Your task to perform on an android device: Go to display settings Image 0: 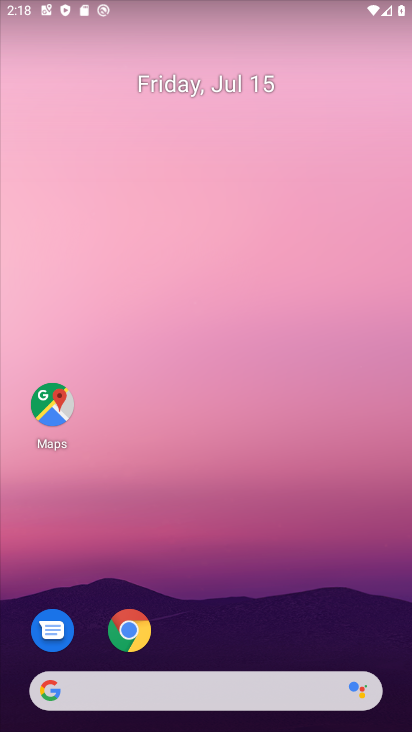
Step 0: press home button
Your task to perform on an android device: Go to display settings Image 1: 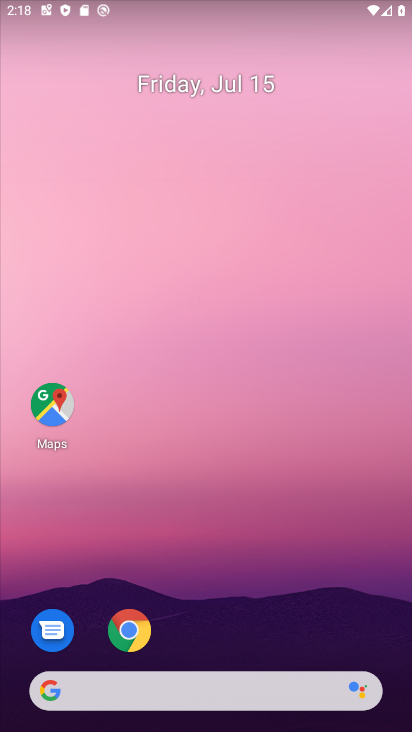
Step 1: drag from (305, 606) to (315, 240)
Your task to perform on an android device: Go to display settings Image 2: 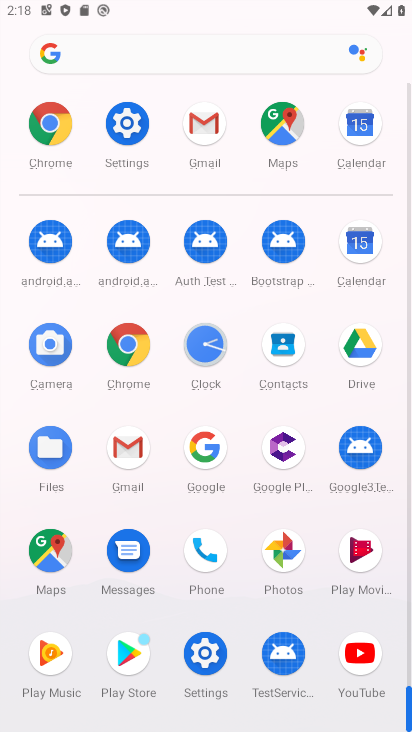
Step 2: click (120, 134)
Your task to perform on an android device: Go to display settings Image 3: 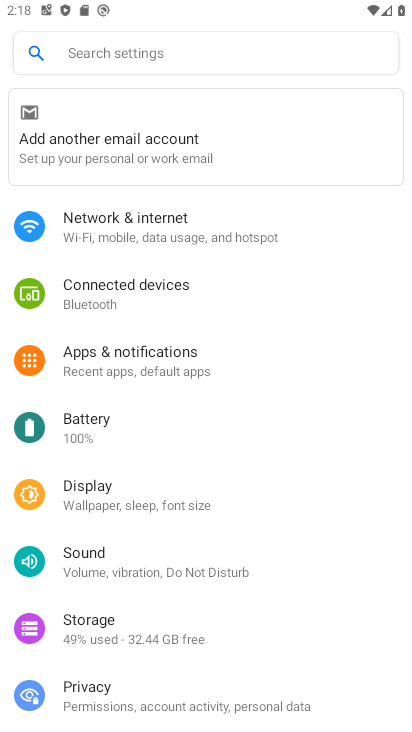
Step 3: click (89, 494)
Your task to perform on an android device: Go to display settings Image 4: 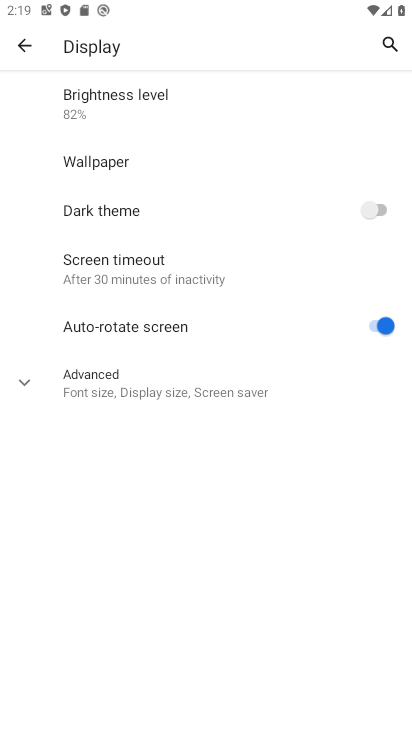
Step 4: task complete